Your task to perform on an android device: Check the settings for the Google Play Movies app Image 0: 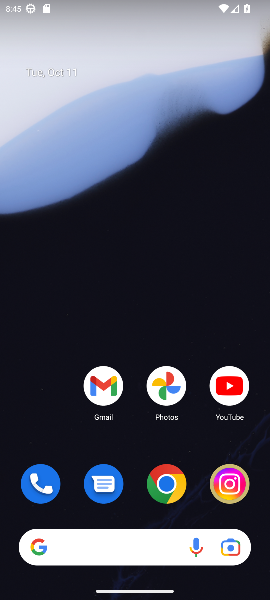
Step 0: drag from (119, 512) to (158, 140)
Your task to perform on an android device: Check the settings for the Google Play Movies app Image 1: 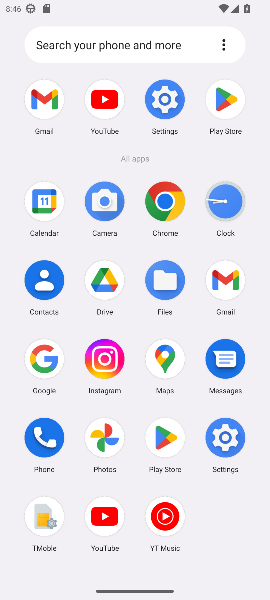
Step 1: task complete